Your task to perform on an android device: open app "Paramount+ | Peak Streaming" Image 0: 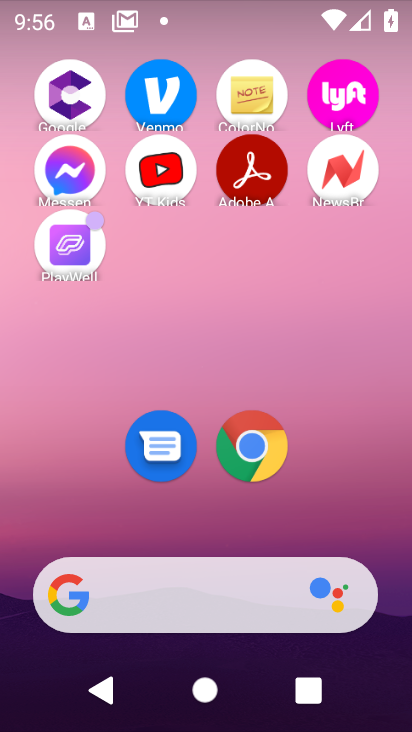
Step 0: drag from (170, 486) to (212, 13)
Your task to perform on an android device: open app "Paramount+ | Peak Streaming" Image 1: 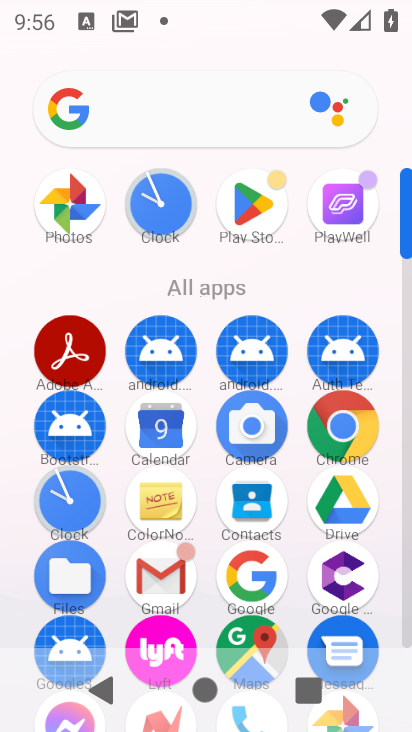
Step 1: click (249, 212)
Your task to perform on an android device: open app "Paramount+ | Peak Streaming" Image 2: 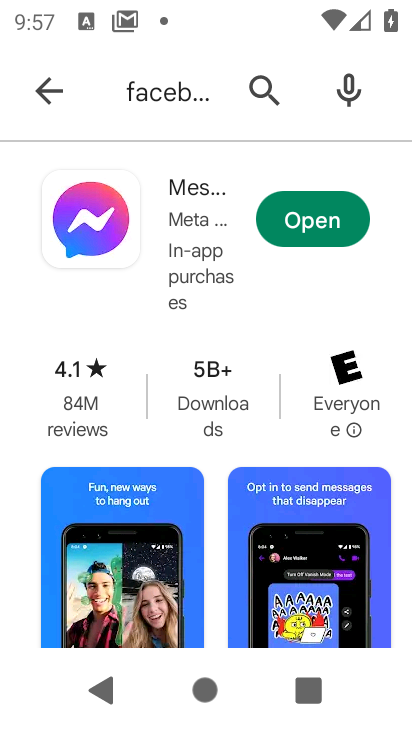
Step 2: click (252, 92)
Your task to perform on an android device: open app "Paramount+ | Peak Streaming" Image 3: 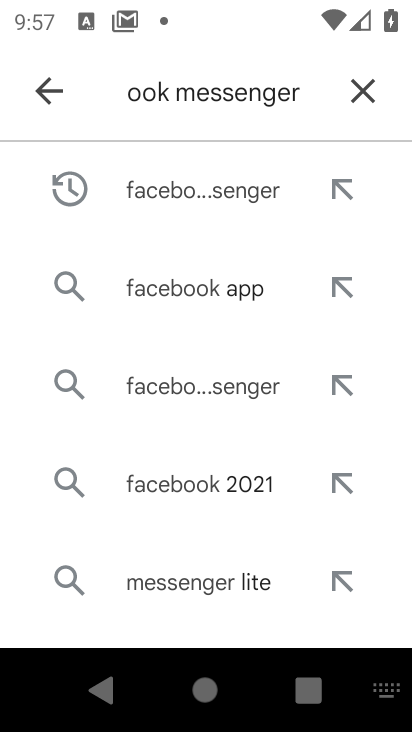
Step 3: click (388, 77)
Your task to perform on an android device: open app "Paramount+ | Peak Streaming" Image 4: 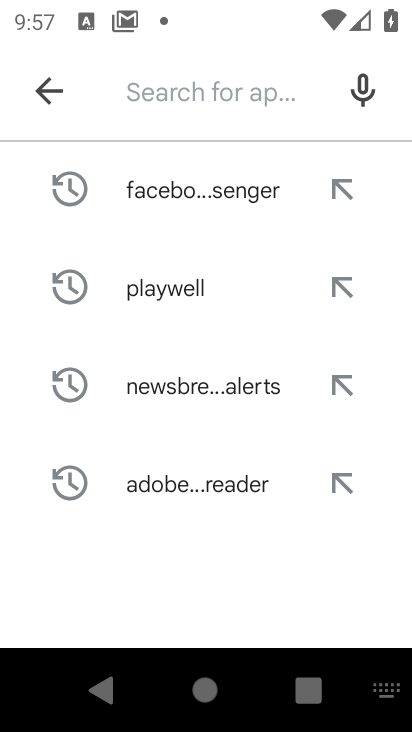
Step 4: click (185, 103)
Your task to perform on an android device: open app "Paramount+ | Peak Streaming" Image 5: 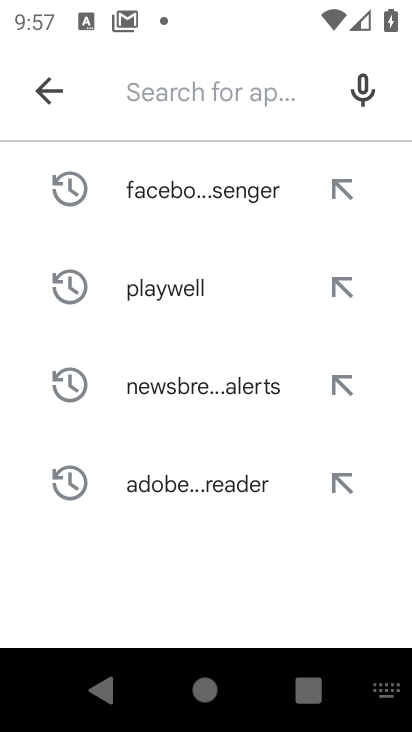
Step 5: click (154, 102)
Your task to perform on an android device: open app "Paramount+ | Peak Streaming" Image 6: 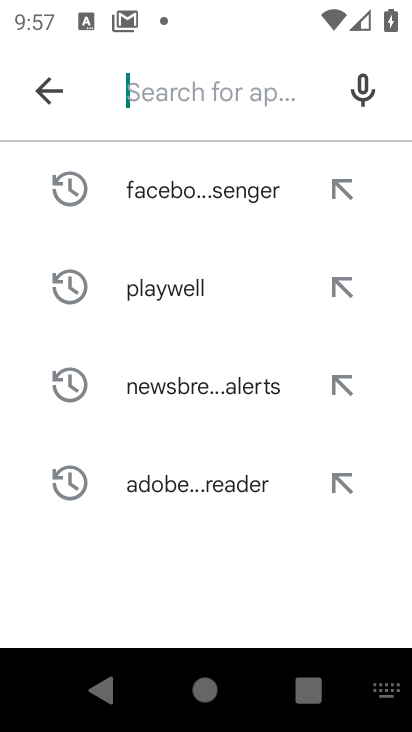
Step 6: type "Paramount+"
Your task to perform on an android device: open app "Paramount+ | Peak Streaming" Image 7: 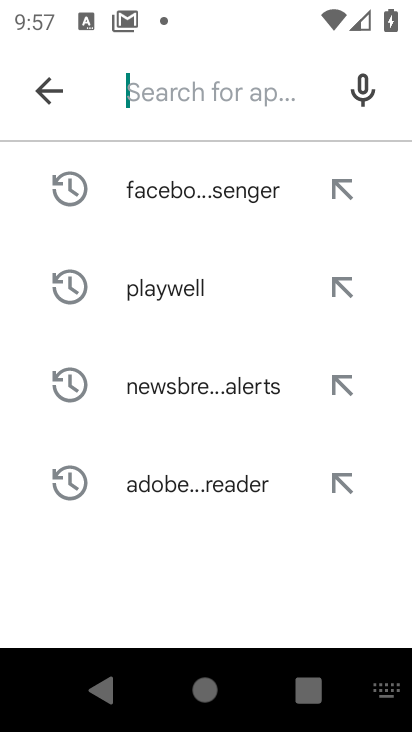
Step 7: click (208, 552)
Your task to perform on an android device: open app "Paramount+ | Peak Streaming" Image 8: 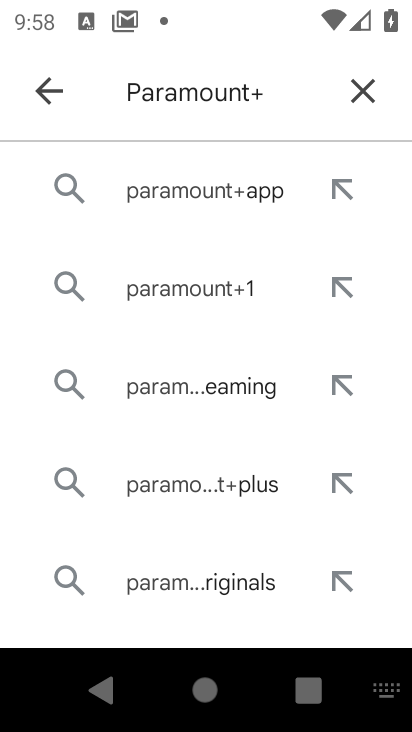
Step 8: click (194, 176)
Your task to perform on an android device: open app "Paramount+ | Peak Streaming" Image 9: 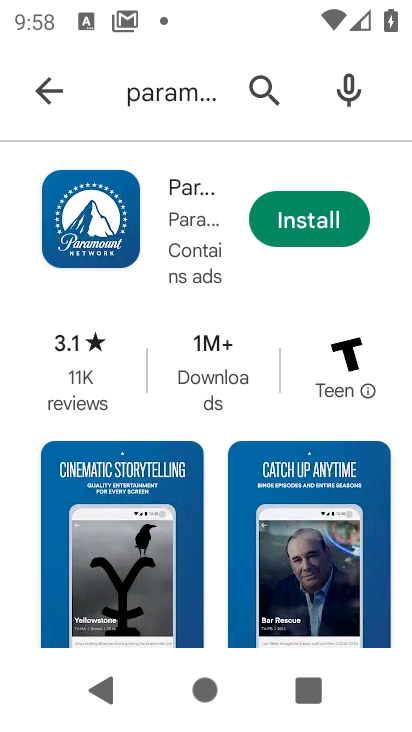
Step 9: task complete